Your task to perform on an android device: check battery use Image 0: 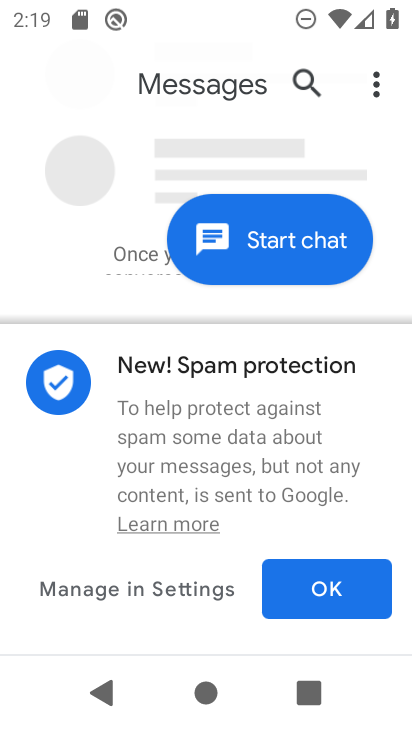
Step 0: press home button
Your task to perform on an android device: check battery use Image 1: 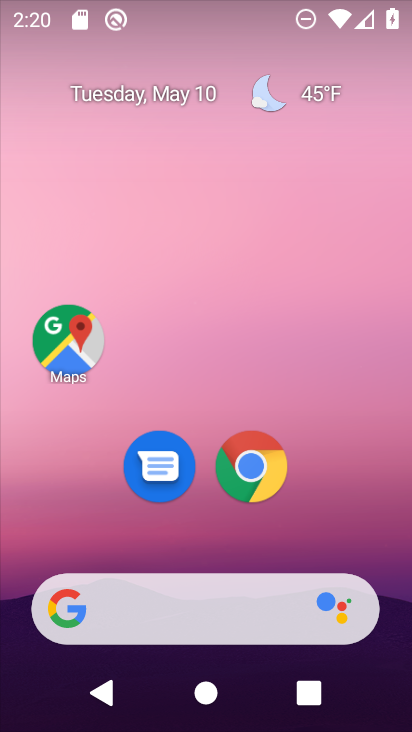
Step 1: drag from (300, 545) to (344, 65)
Your task to perform on an android device: check battery use Image 2: 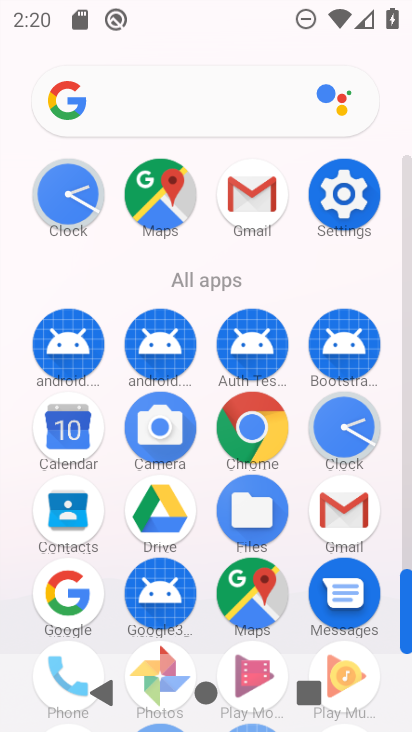
Step 2: click (339, 197)
Your task to perform on an android device: check battery use Image 3: 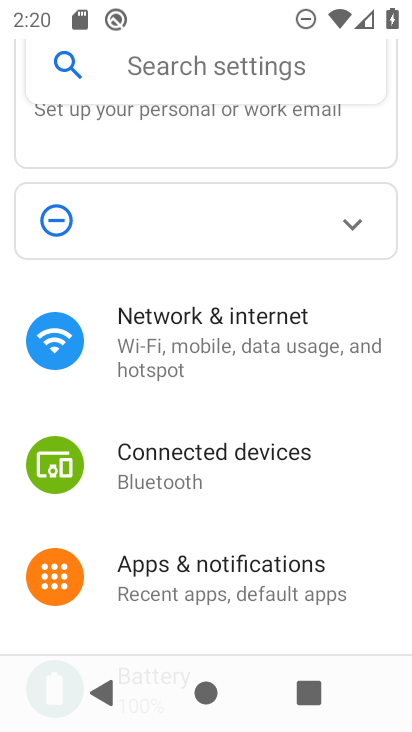
Step 3: drag from (242, 513) to (313, 246)
Your task to perform on an android device: check battery use Image 4: 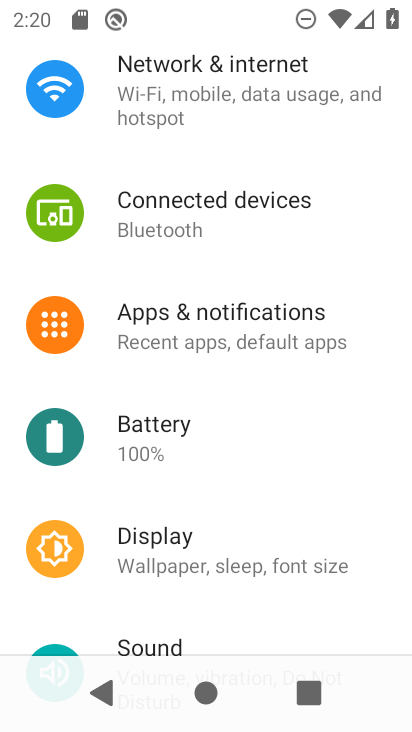
Step 4: click (257, 441)
Your task to perform on an android device: check battery use Image 5: 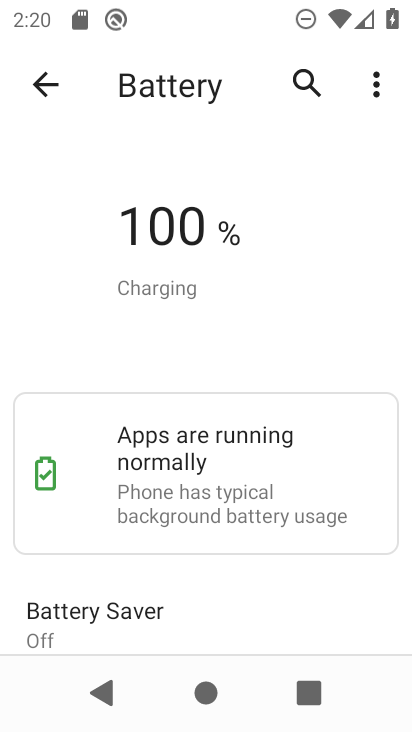
Step 5: click (372, 87)
Your task to perform on an android device: check battery use Image 6: 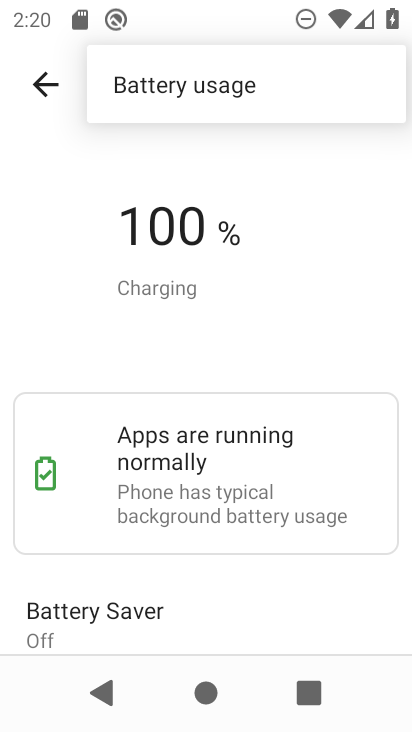
Step 6: click (339, 102)
Your task to perform on an android device: check battery use Image 7: 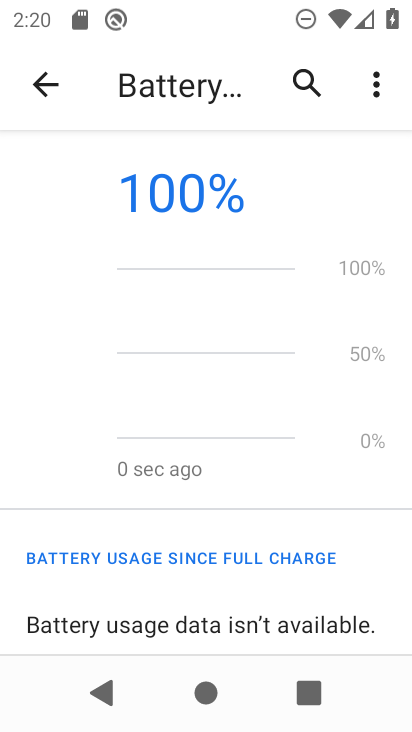
Step 7: task complete